Your task to perform on an android device: toggle notifications settings in the gmail app Image 0: 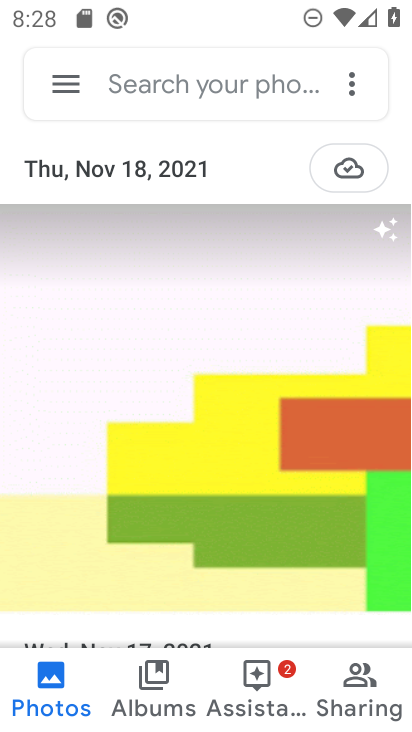
Step 0: press home button
Your task to perform on an android device: toggle notifications settings in the gmail app Image 1: 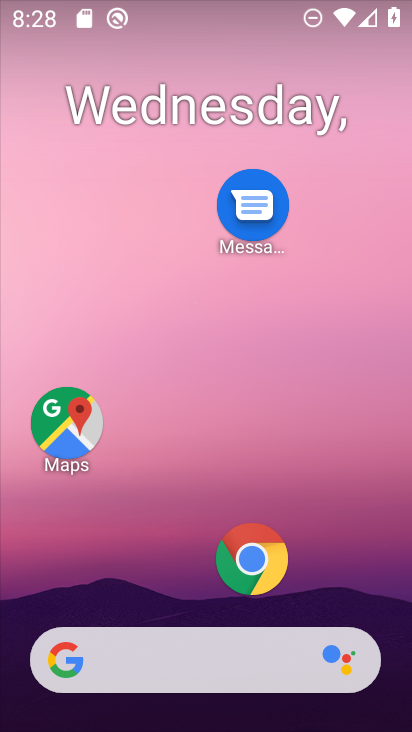
Step 1: drag from (236, 592) to (279, 203)
Your task to perform on an android device: toggle notifications settings in the gmail app Image 2: 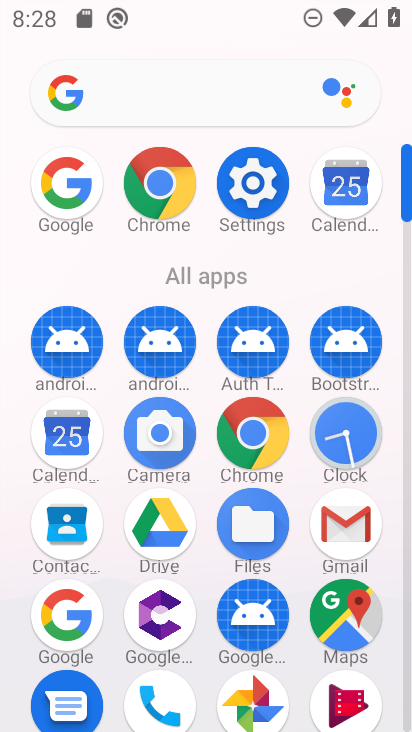
Step 2: click (351, 542)
Your task to perform on an android device: toggle notifications settings in the gmail app Image 3: 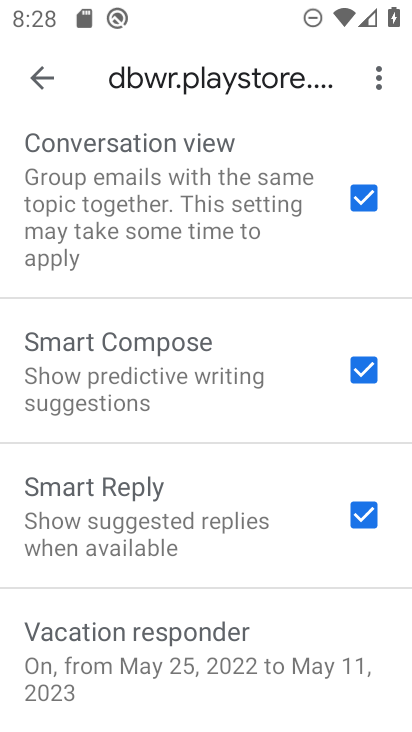
Step 3: press home button
Your task to perform on an android device: toggle notifications settings in the gmail app Image 4: 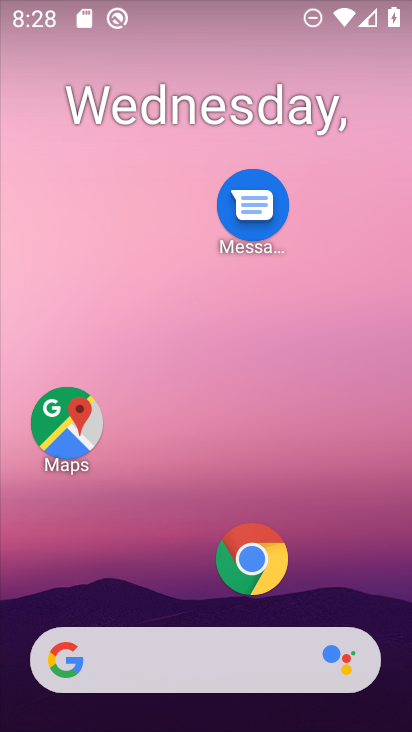
Step 4: drag from (148, 635) to (137, 282)
Your task to perform on an android device: toggle notifications settings in the gmail app Image 5: 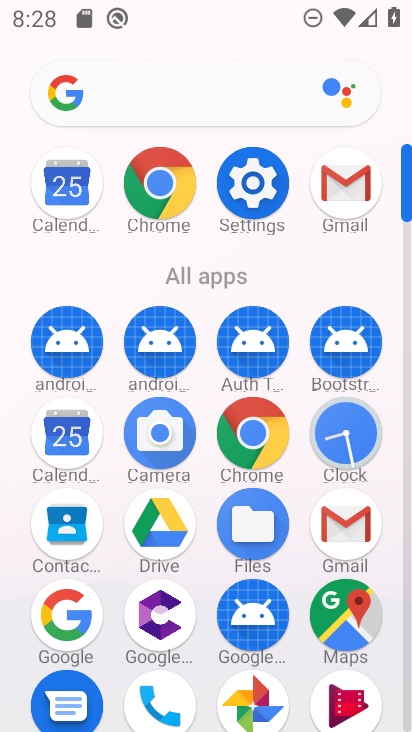
Step 5: click (344, 189)
Your task to perform on an android device: toggle notifications settings in the gmail app Image 6: 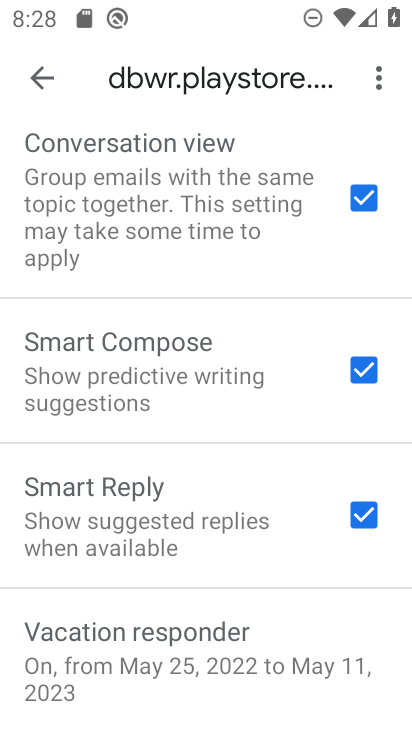
Step 6: click (37, 73)
Your task to perform on an android device: toggle notifications settings in the gmail app Image 7: 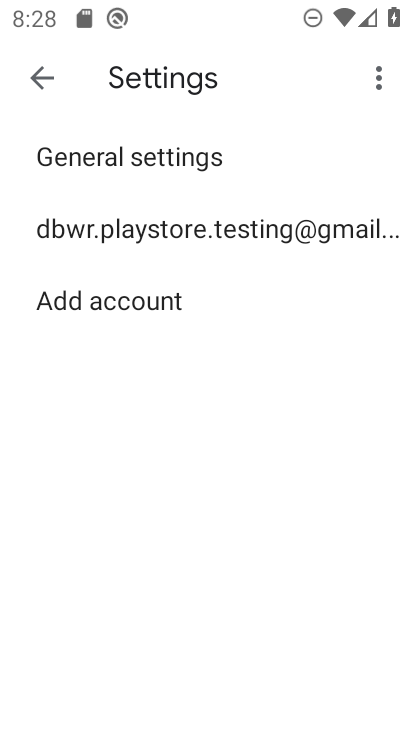
Step 7: click (208, 165)
Your task to perform on an android device: toggle notifications settings in the gmail app Image 8: 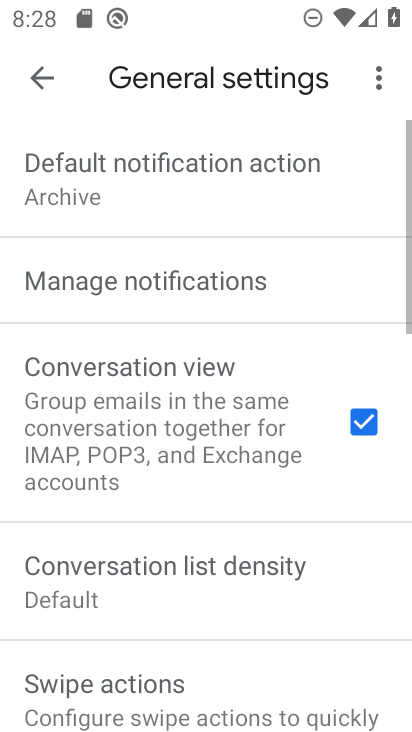
Step 8: click (212, 273)
Your task to perform on an android device: toggle notifications settings in the gmail app Image 9: 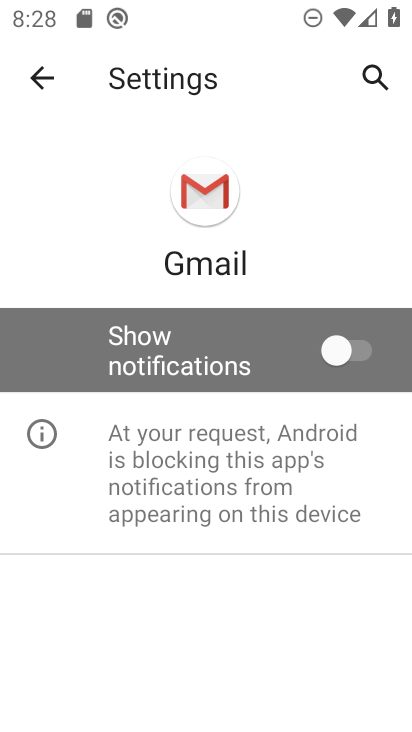
Step 9: click (360, 357)
Your task to perform on an android device: toggle notifications settings in the gmail app Image 10: 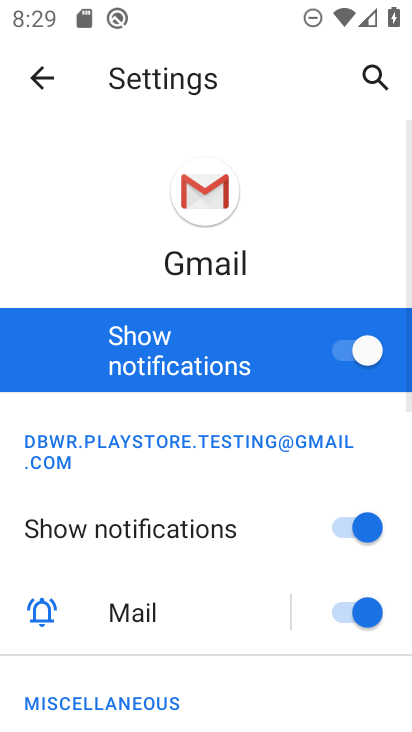
Step 10: task complete